Your task to perform on an android device: Add "bose soundlink mini" to the cart on walmart.com Image 0: 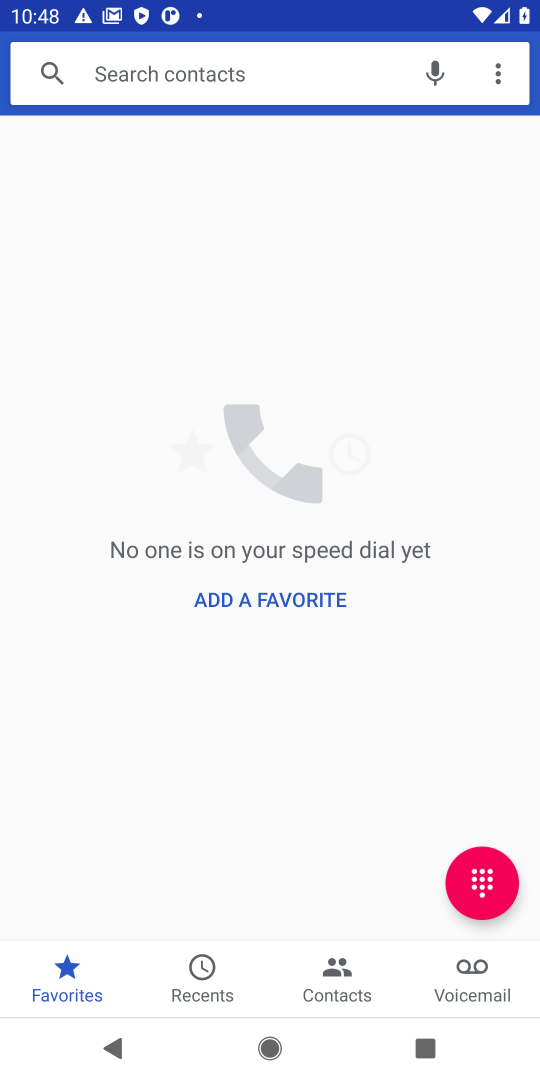
Step 0: press home button
Your task to perform on an android device: Add "bose soundlink mini" to the cart on walmart.com Image 1: 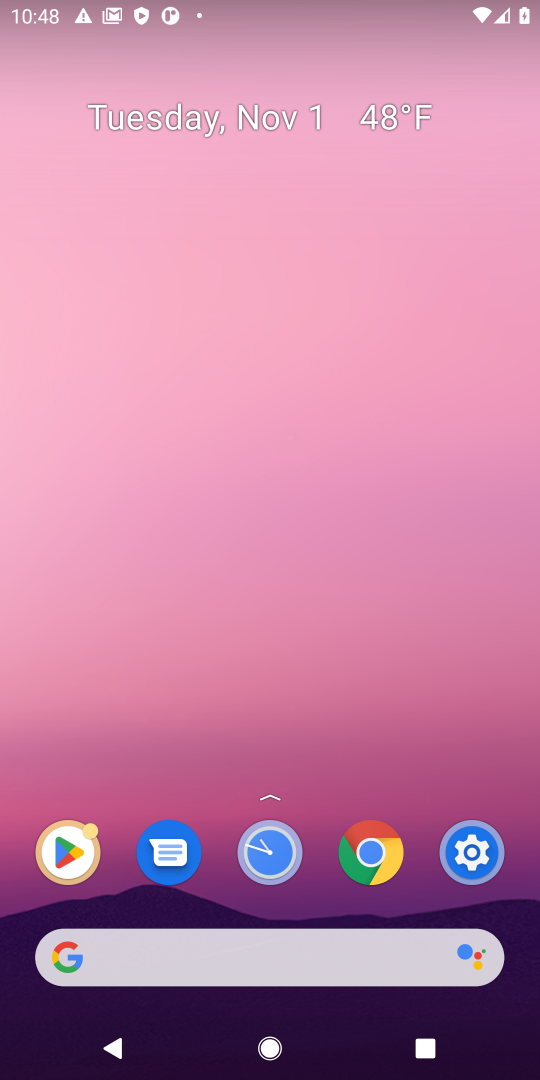
Step 1: type "walmart.com"
Your task to perform on an android device: Add "bose soundlink mini" to the cart on walmart.com Image 2: 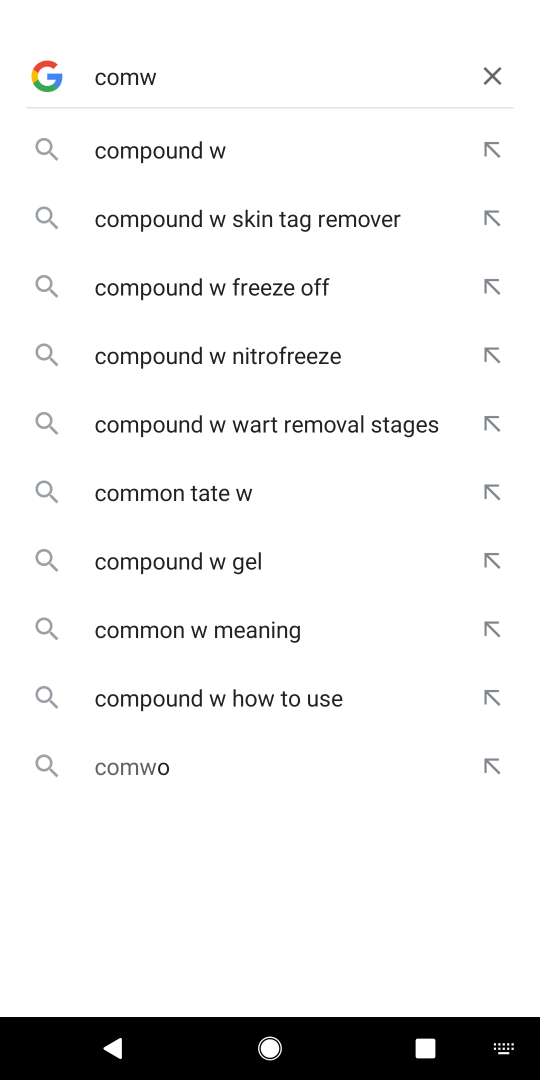
Step 2: type ""
Your task to perform on an android device: Add "bose soundlink mini" to the cart on walmart.com Image 3: 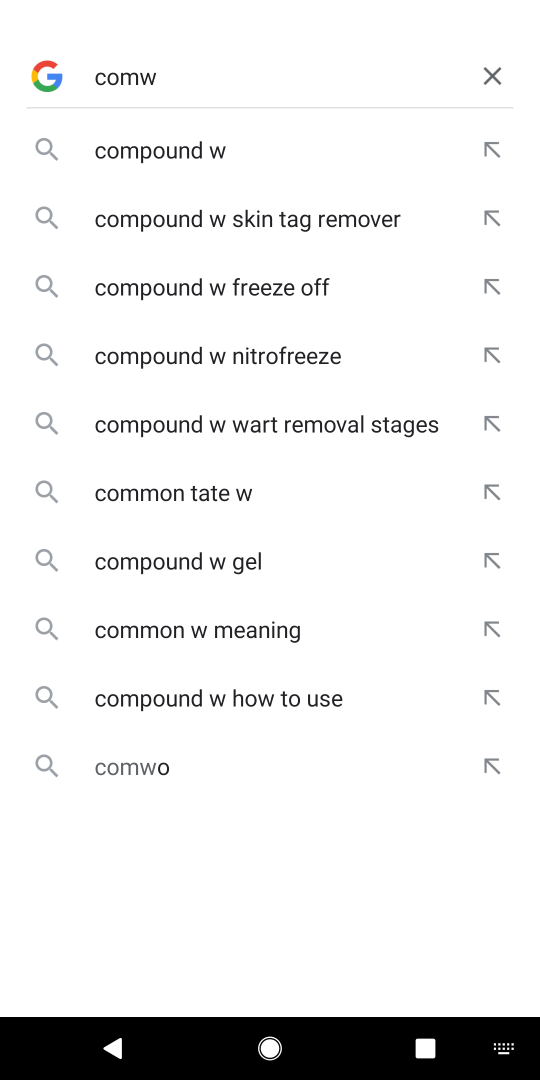
Step 3: click (271, 980)
Your task to perform on an android device: Add "bose soundlink mini" to the cart on walmart.com Image 4: 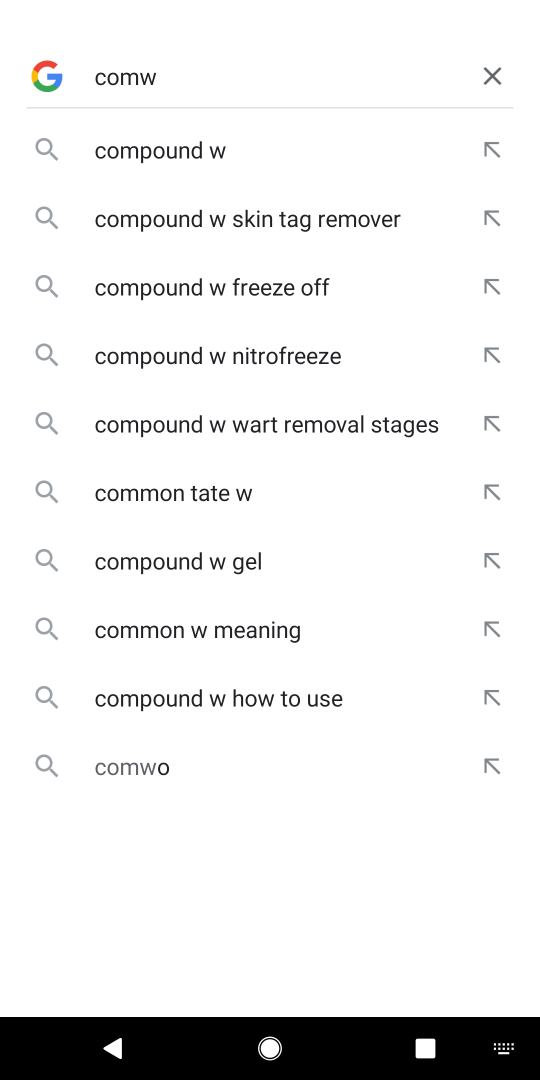
Step 4: click (490, 73)
Your task to perform on an android device: Add "bose soundlink mini" to the cart on walmart.com Image 5: 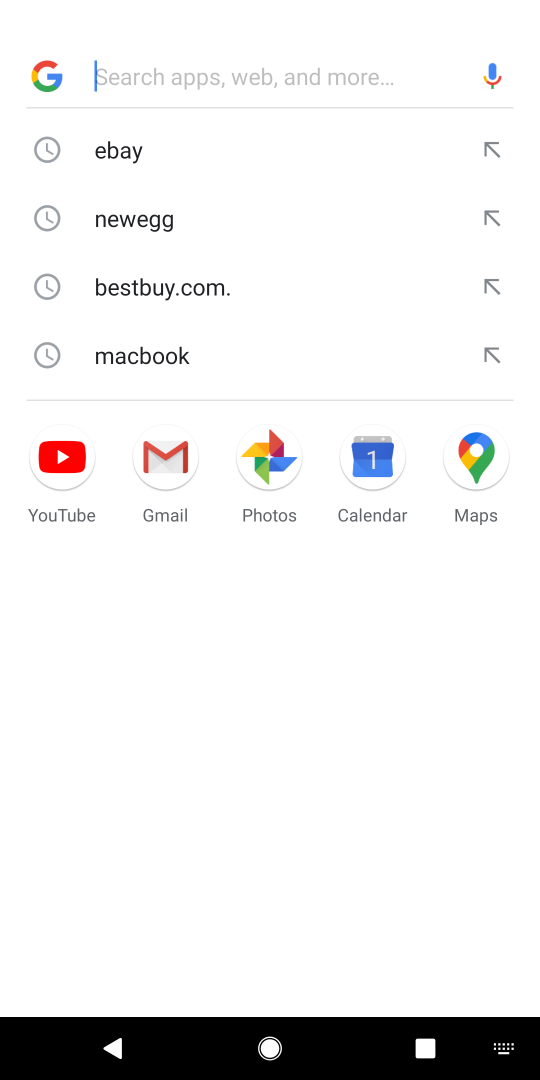
Step 5: type "walmart.com"
Your task to perform on an android device: Add "bose soundlink mini" to the cart on walmart.com Image 6: 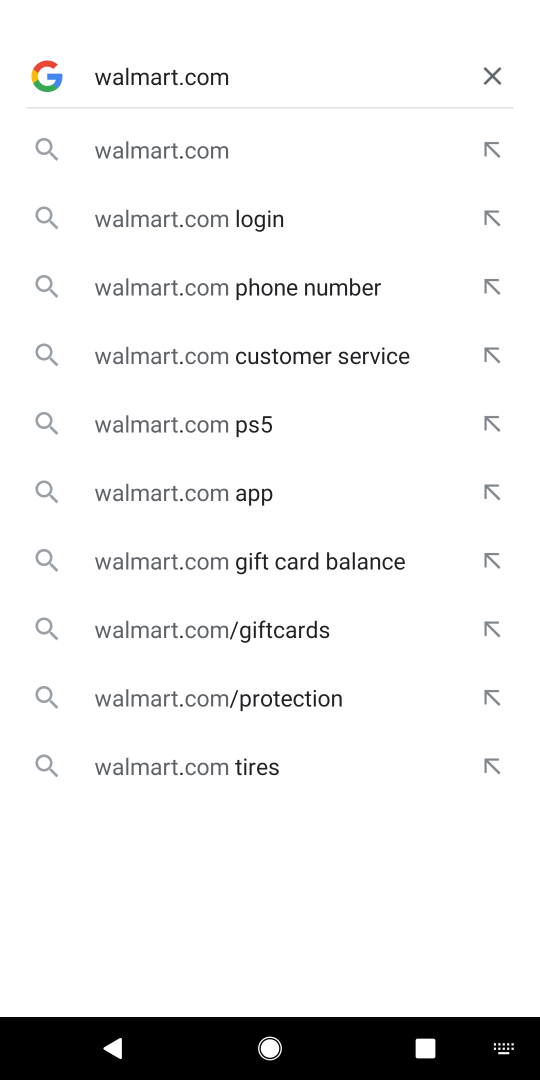
Step 6: type ""
Your task to perform on an android device: Add "bose soundlink mini" to the cart on walmart.com Image 7: 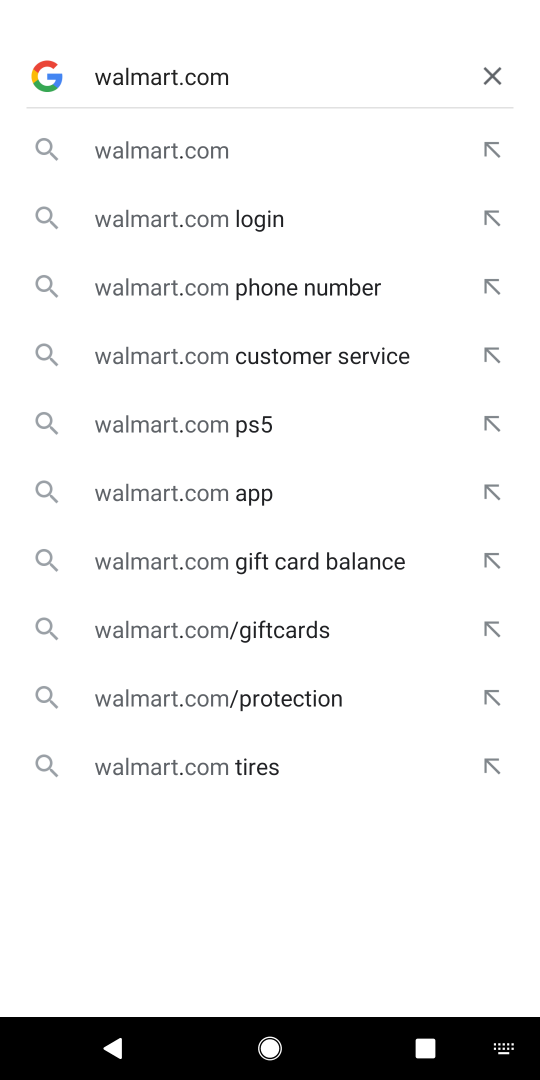
Step 7: press enter
Your task to perform on an android device: Add "bose soundlink mini" to the cart on walmart.com Image 8: 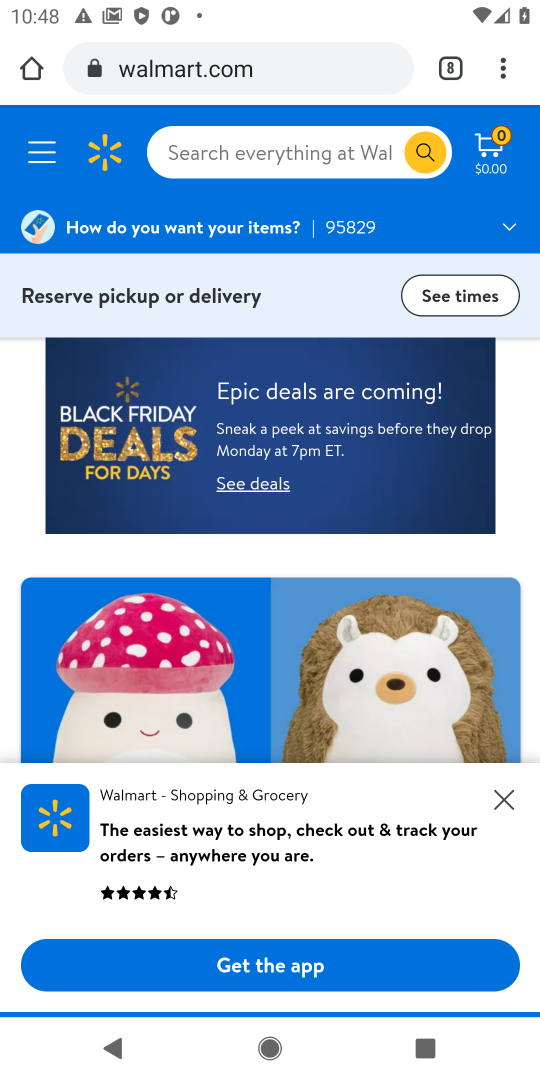
Step 8: click (515, 804)
Your task to perform on an android device: Add "bose soundlink mini" to the cart on walmart.com Image 9: 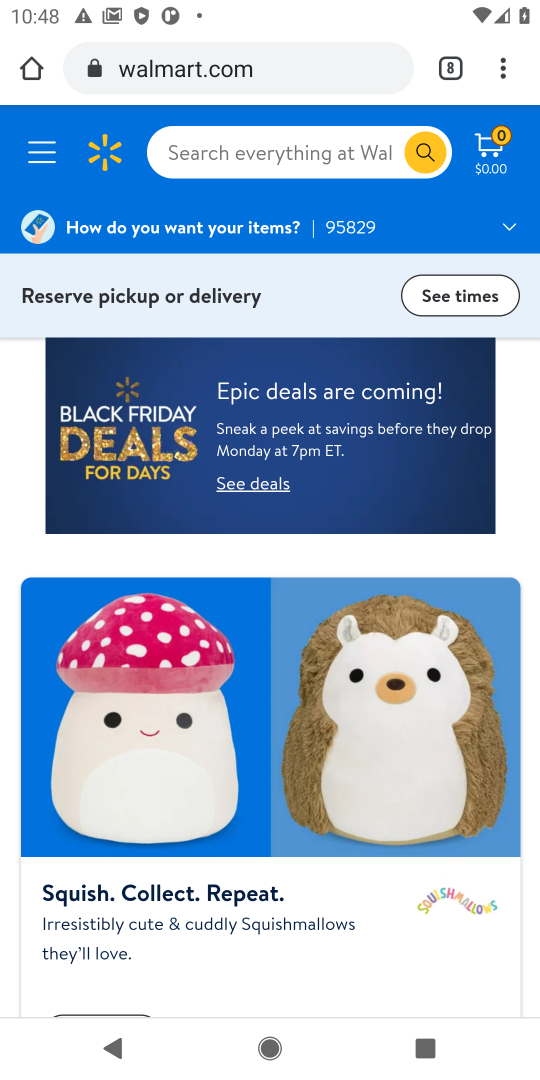
Step 9: type "bose soundlink mini"
Your task to perform on an android device: Add "bose soundlink mini" to the cart on walmart.com Image 10: 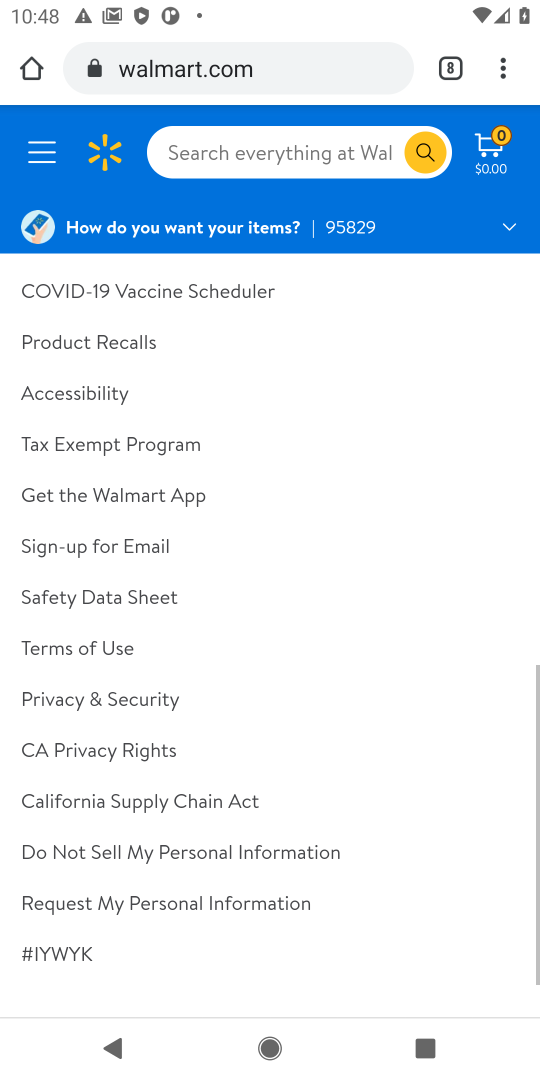
Step 10: type ""
Your task to perform on an android device: Add "bose soundlink mini" to the cart on walmart.com Image 11: 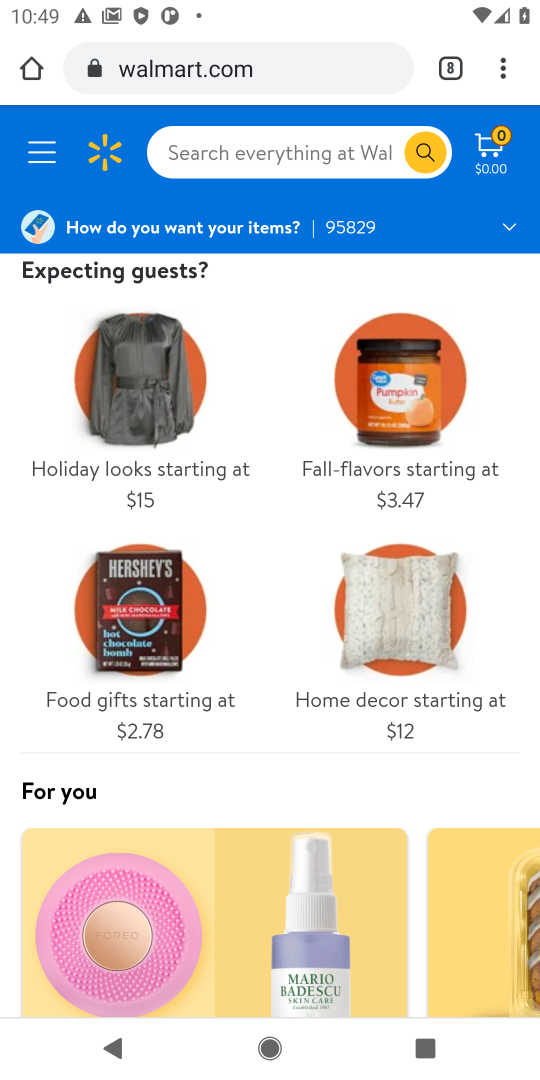
Step 11: click (235, 141)
Your task to perform on an android device: Add "bose soundlink mini" to the cart on walmart.com Image 12: 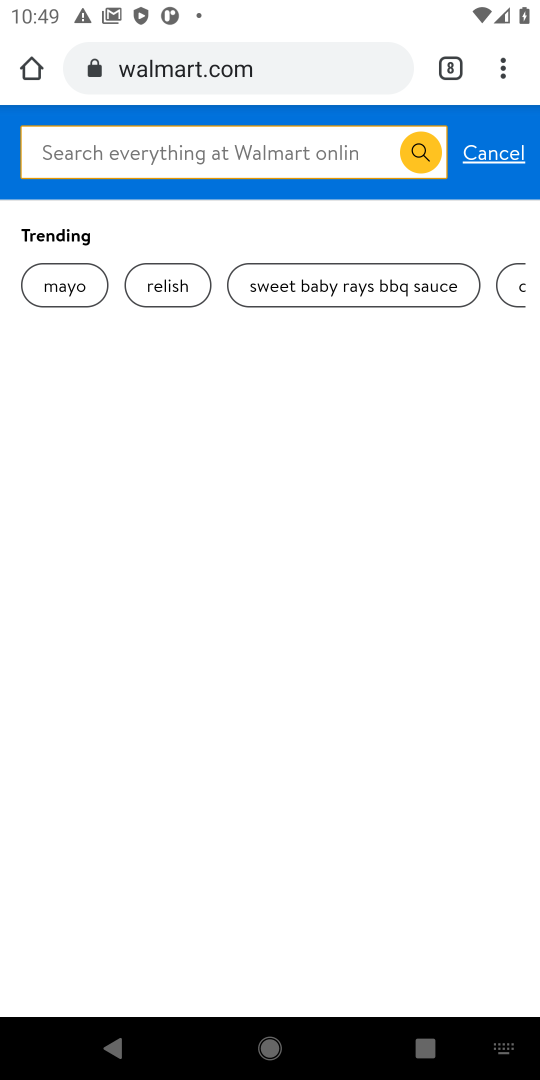
Step 12: type "bose soundlink mini"
Your task to perform on an android device: Add "bose soundlink mini" to the cart on walmart.com Image 13: 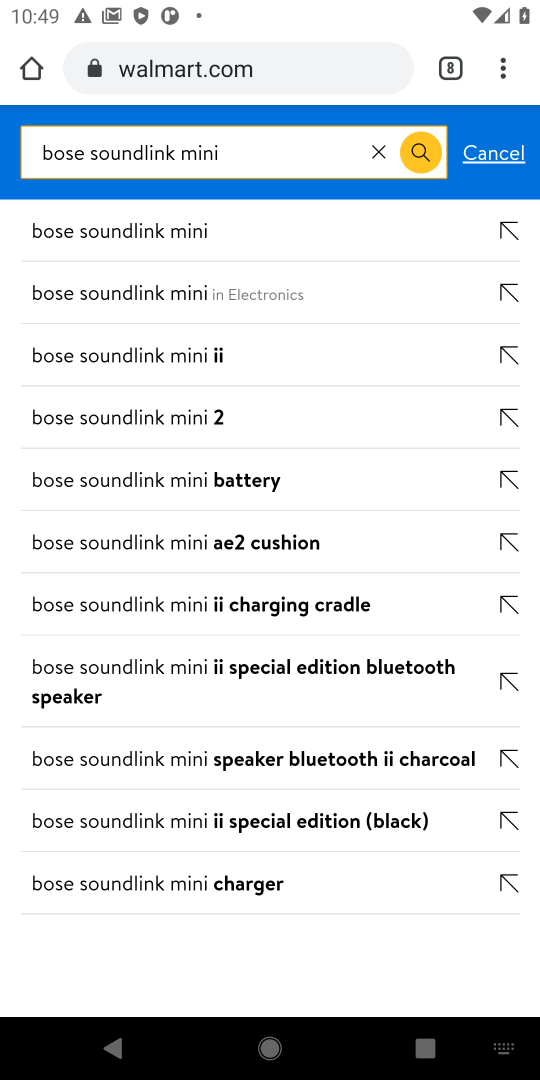
Step 13: click (426, 169)
Your task to perform on an android device: Add "bose soundlink mini" to the cart on walmart.com Image 14: 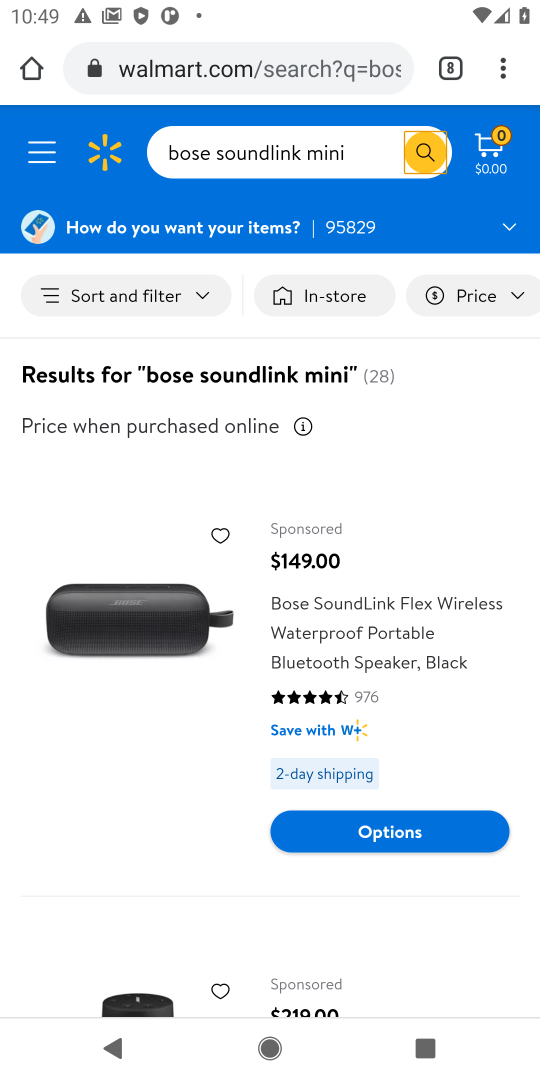
Step 14: click (421, 842)
Your task to perform on an android device: Add "bose soundlink mini" to the cart on walmart.com Image 15: 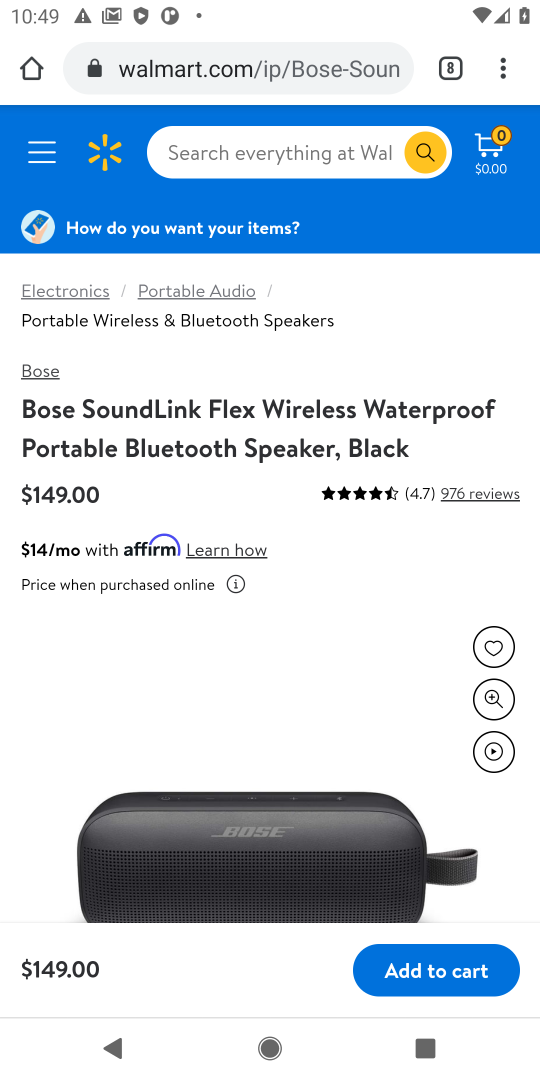
Step 15: click (457, 961)
Your task to perform on an android device: Add "bose soundlink mini" to the cart on walmart.com Image 16: 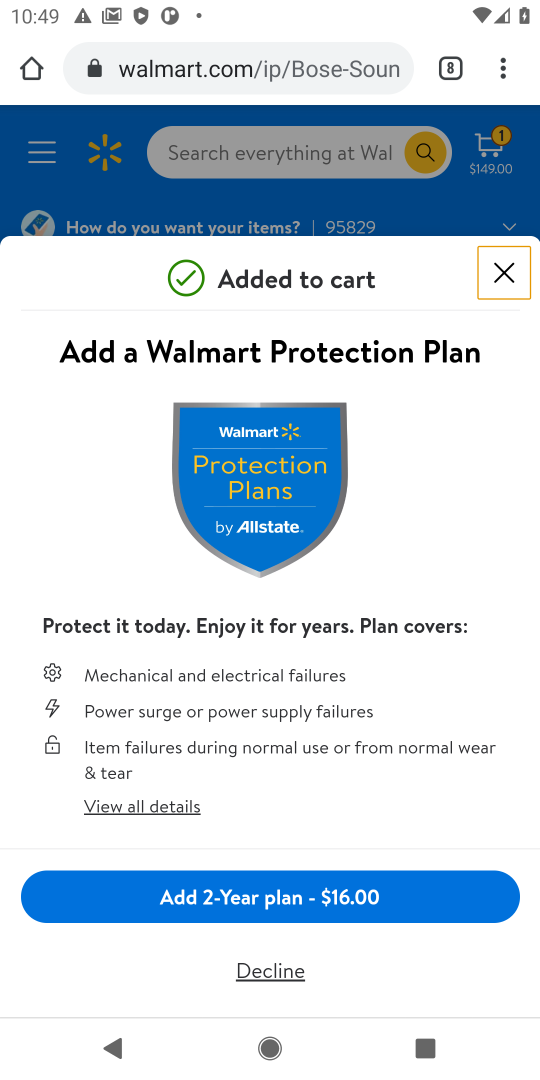
Step 16: click (505, 276)
Your task to perform on an android device: Add "bose soundlink mini" to the cart on walmart.com Image 17: 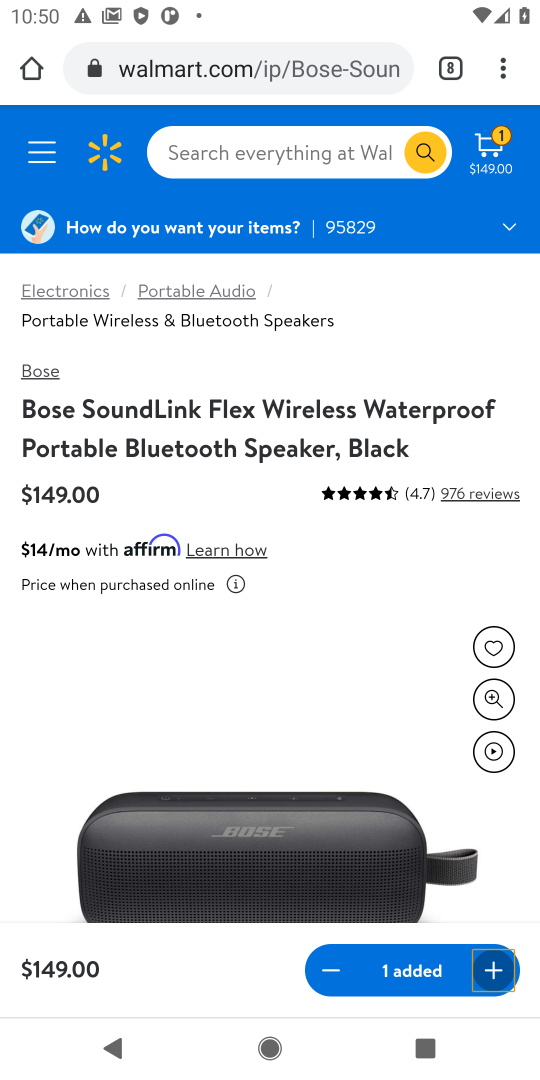
Step 17: task complete